Your task to perform on an android device: Search for seafood restaurants on Google Maps Image 0: 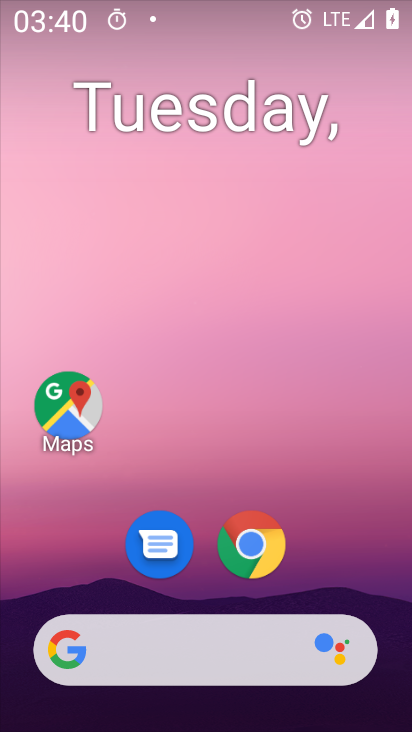
Step 0: drag from (341, 521) to (246, 14)
Your task to perform on an android device: Search for seafood restaurants on Google Maps Image 1: 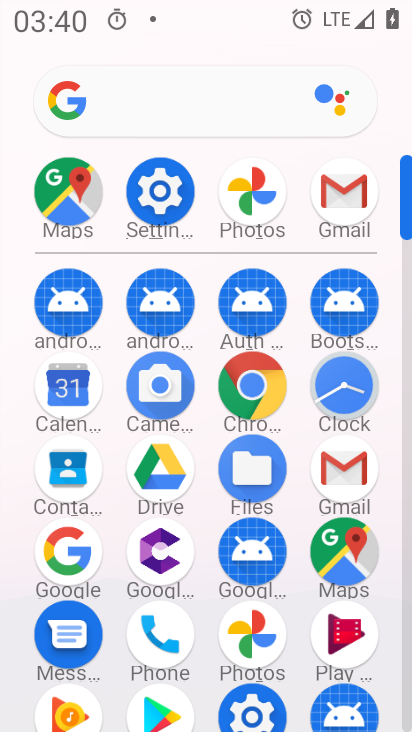
Step 1: drag from (0, 557) to (20, 172)
Your task to perform on an android device: Search for seafood restaurants on Google Maps Image 2: 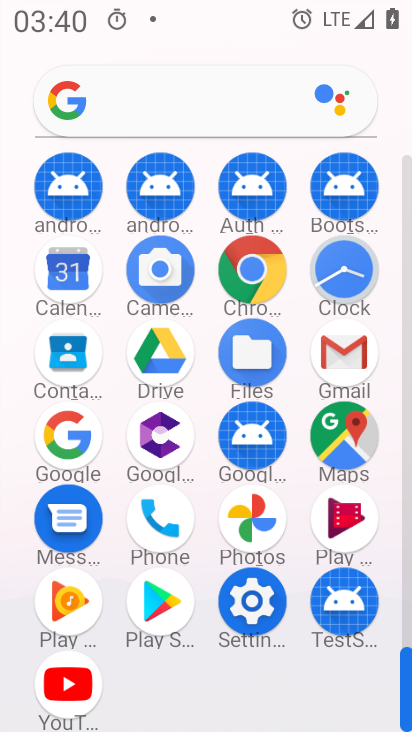
Step 2: click (343, 437)
Your task to perform on an android device: Search for seafood restaurants on Google Maps Image 3: 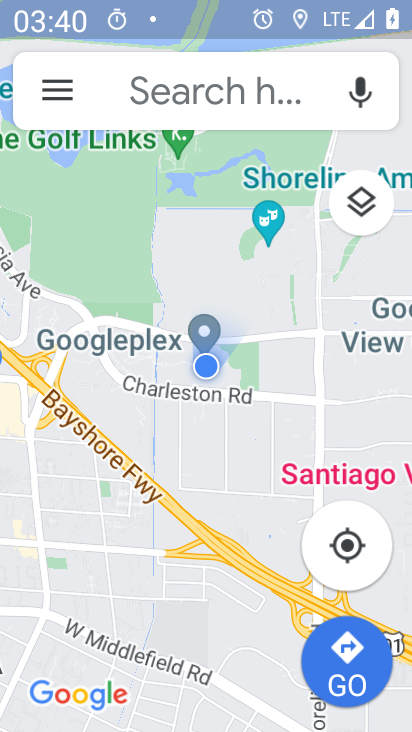
Step 3: click (129, 87)
Your task to perform on an android device: Search for seafood restaurants on Google Maps Image 4: 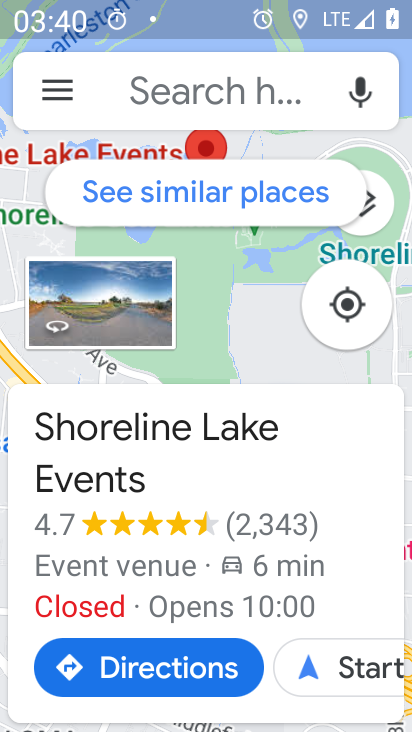
Step 4: click (136, 78)
Your task to perform on an android device: Search for seafood restaurants on Google Maps Image 5: 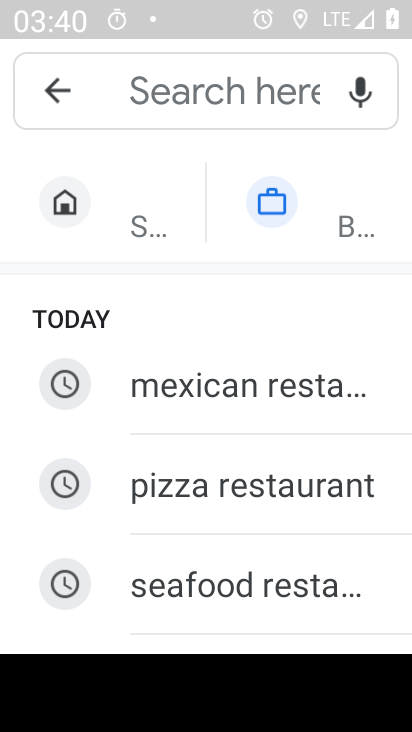
Step 5: click (294, 594)
Your task to perform on an android device: Search for seafood restaurants on Google Maps Image 6: 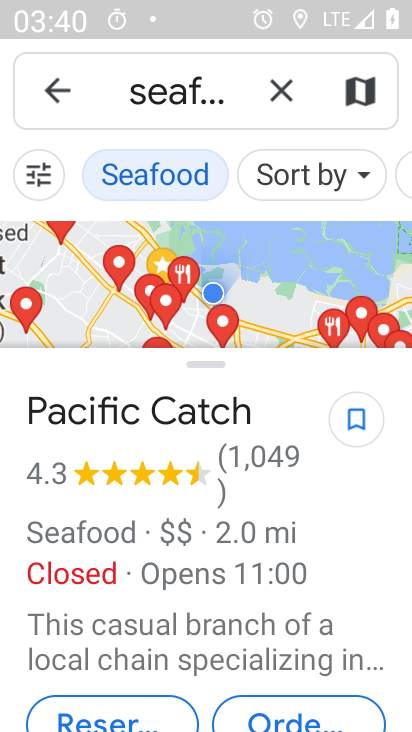
Step 6: task complete